Your task to perform on an android device: uninstall "Life360: Find Family & Friends" Image 0: 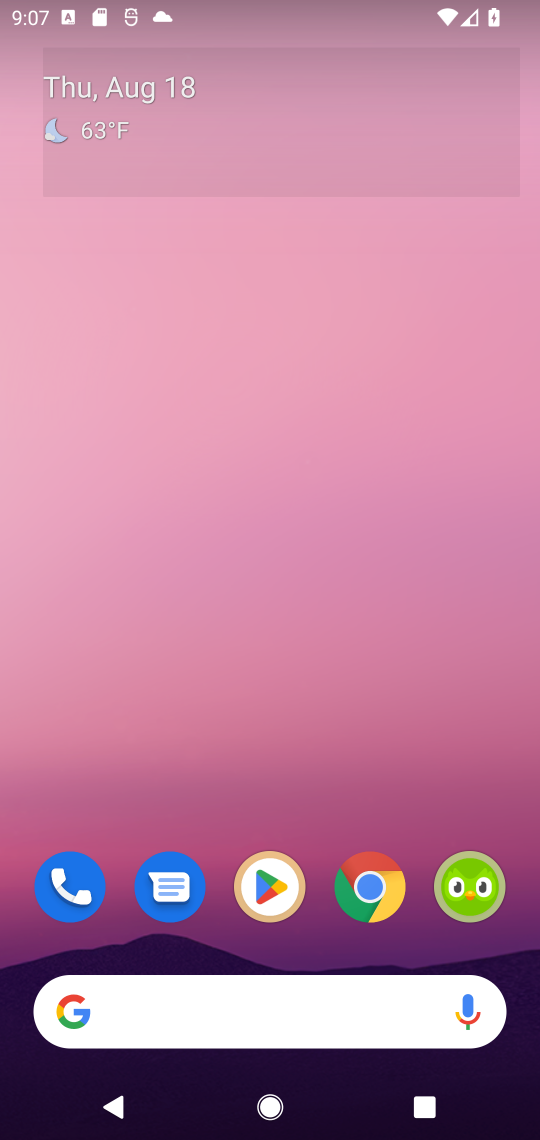
Step 0: click (267, 896)
Your task to perform on an android device: uninstall "Life360: Find Family & Friends" Image 1: 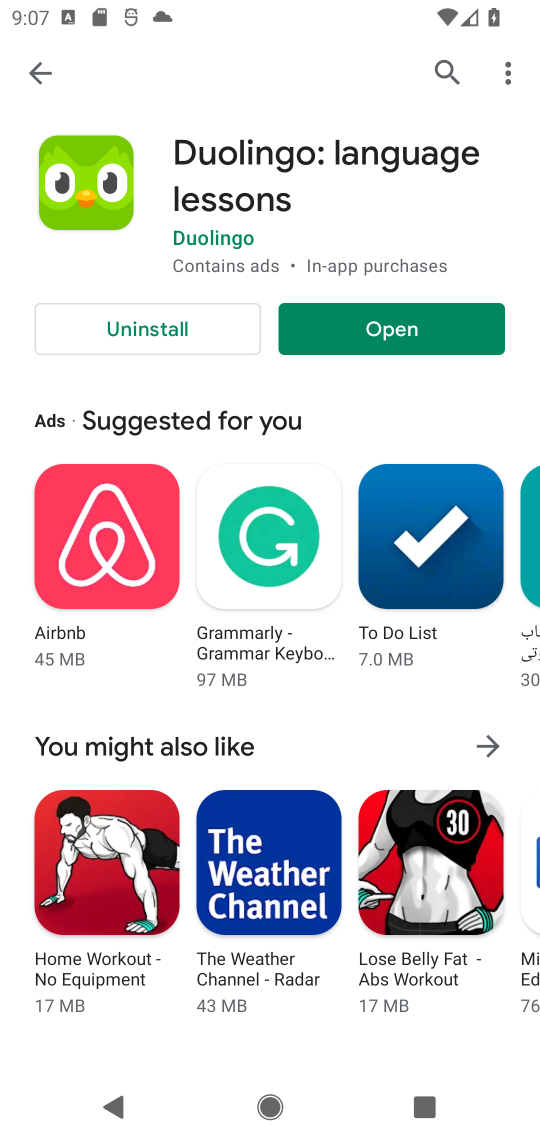
Step 1: click (450, 58)
Your task to perform on an android device: uninstall "Life360: Find Family & Friends" Image 2: 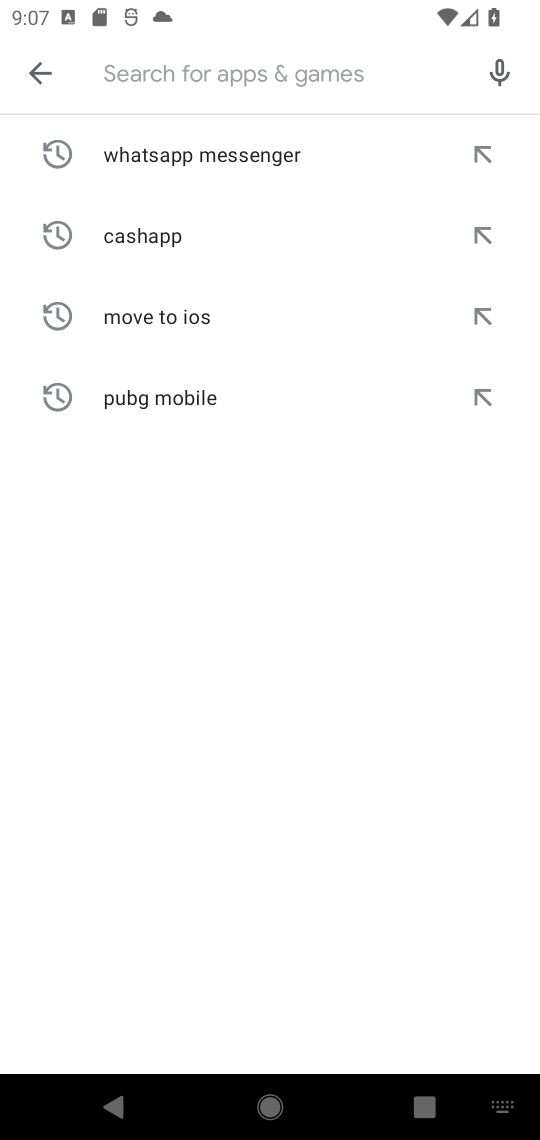
Step 2: type "Life360: Find Family & Friends"
Your task to perform on an android device: uninstall "Life360: Find Family & Friends" Image 3: 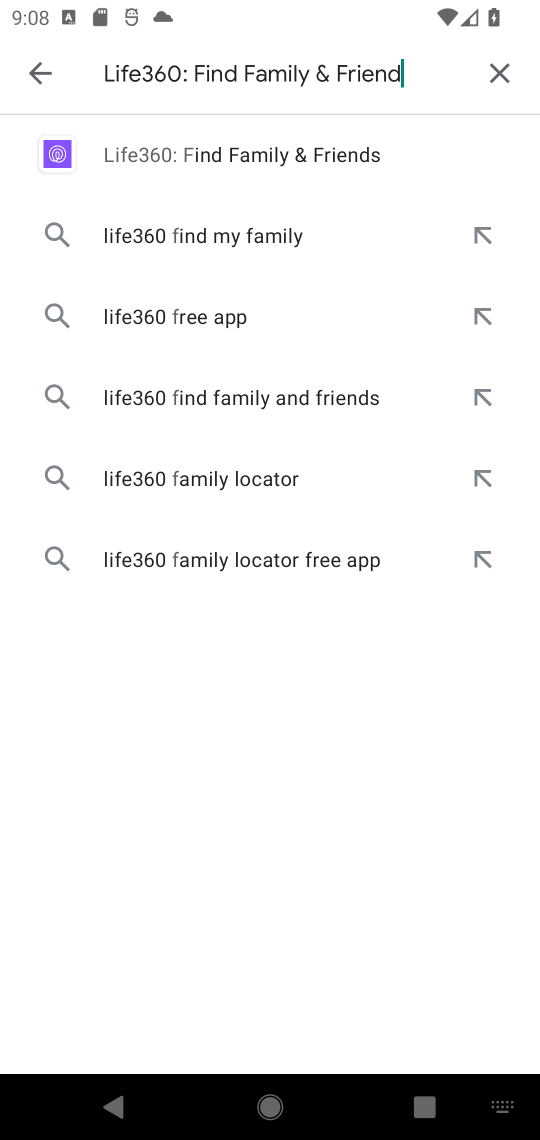
Step 3: type ""
Your task to perform on an android device: uninstall "Life360: Find Family & Friends" Image 4: 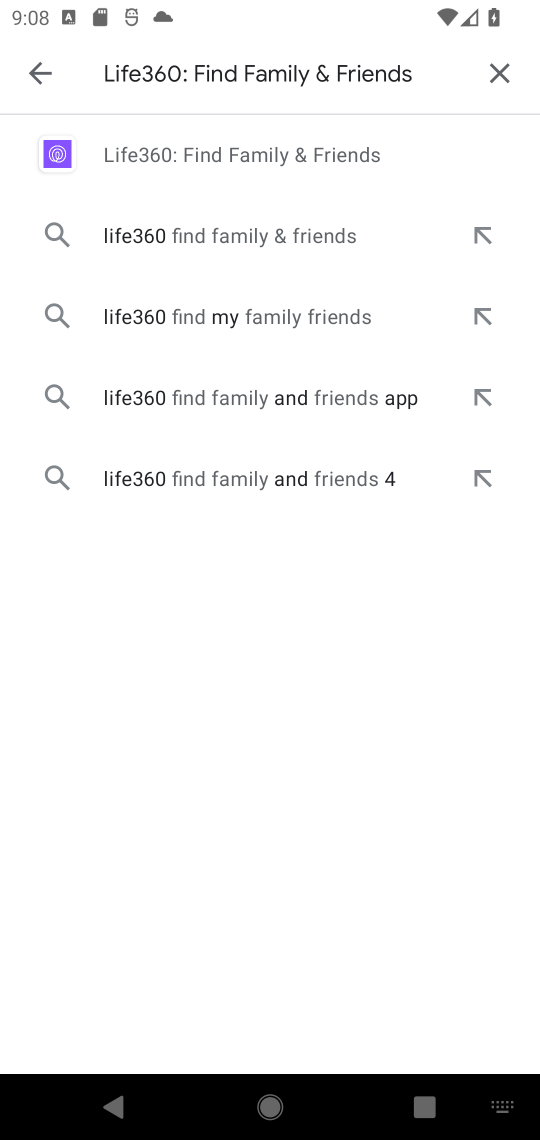
Step 4: click (332, 149)
Your task to perform on an android device: uninstall "Life360: Find Family & Friends" Image 5: 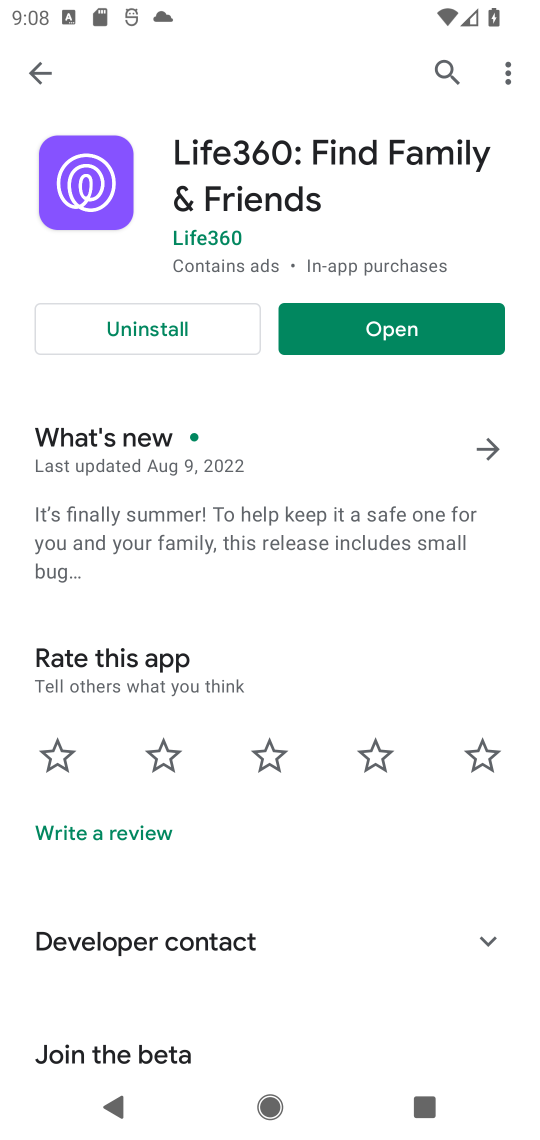
Step 5: click (177, 336)
Your task to perform on an android device: uninstall "Life360: Find Family & Friends" Image 6: 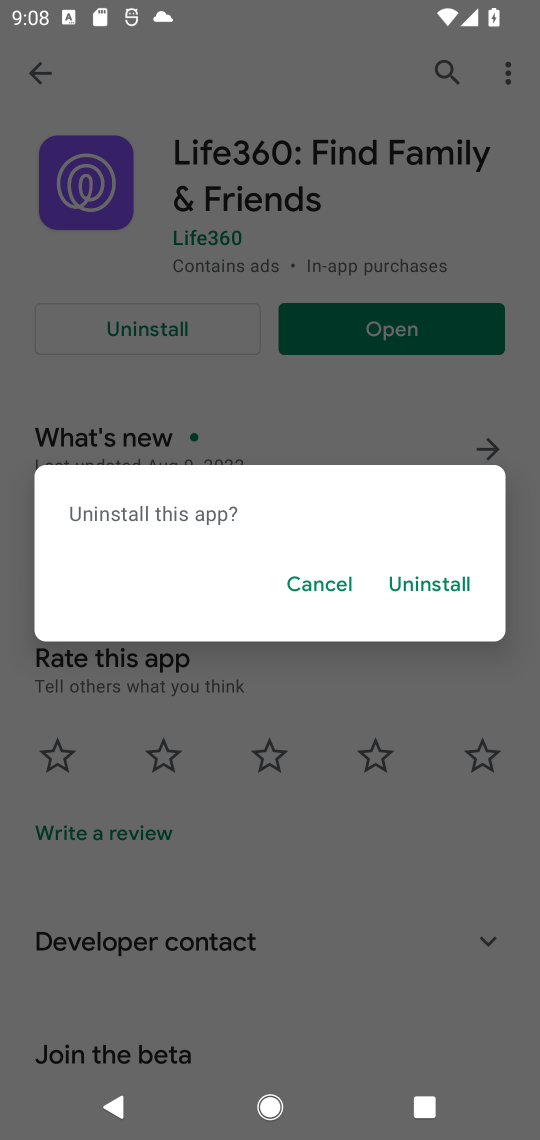
Step 6: click (433, 588)
Your task to perform on an android device: uninstall "Life360: Find Family & Friends" Image 7: 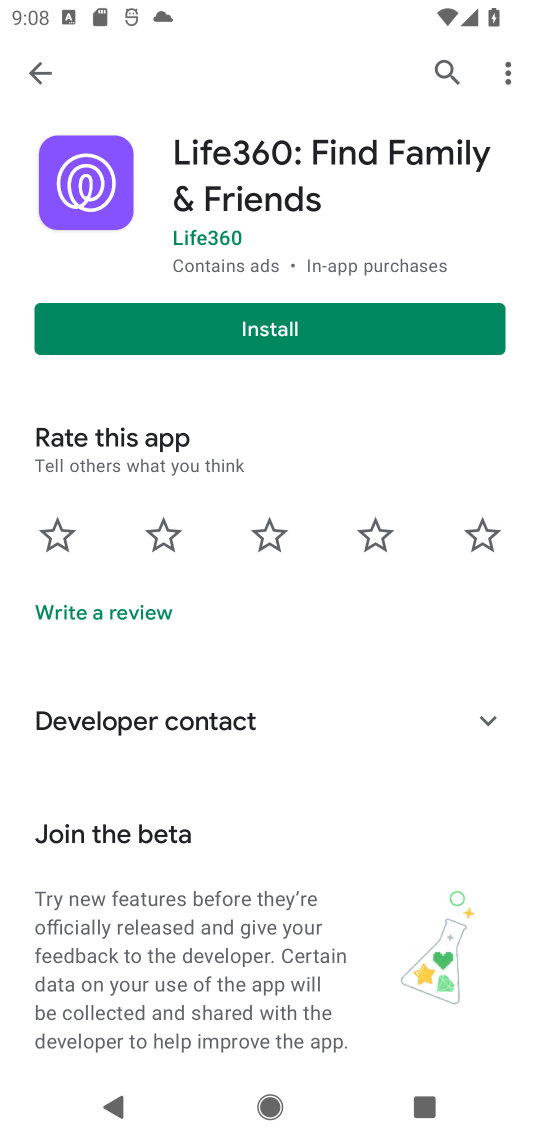
Step 7: task complete